Your task to perform on an android device: What's on my calendar today? Image 0: 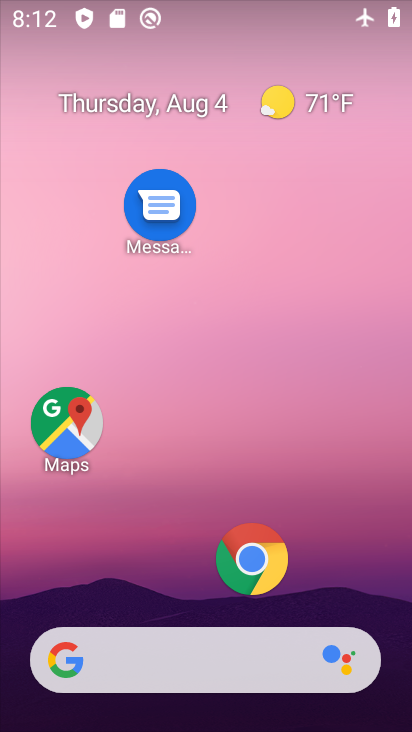
Step 0: drag from (192, 628) to (87, 42)
Your task to perform on an android device: What's on my calendar today? Image 1: 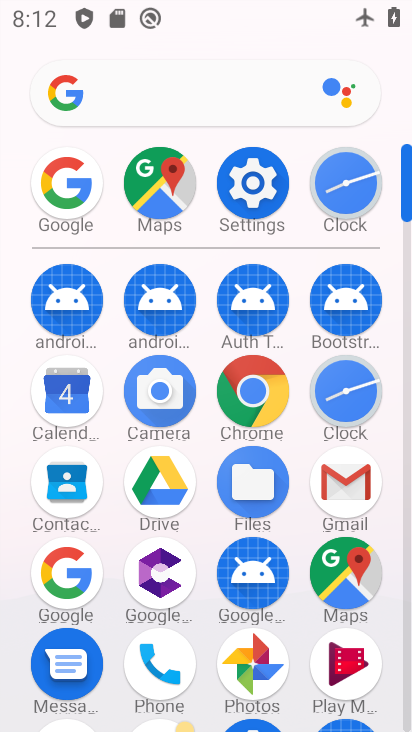
Step 1: click (38, 392)
Your task to perform on an android device: What's on my calendar today? Image 2: 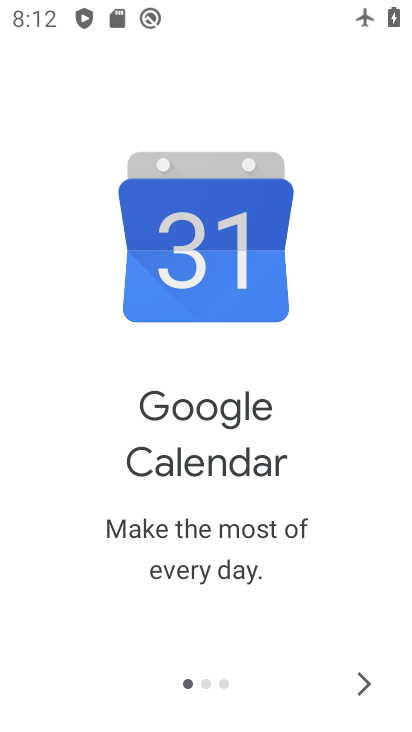
Step 2: click (368, 673)
Your task to perform on an android device: What's on my calendar today? Image 3: 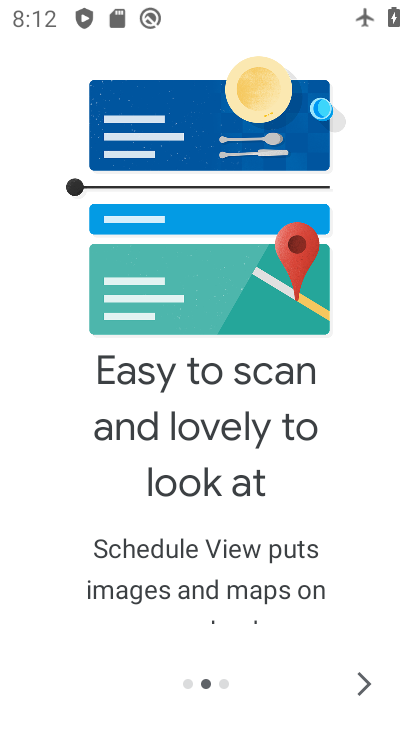
Step 3: click (365, 684)
Your task to perform on an android device: What's on my calendar today? Image 4: 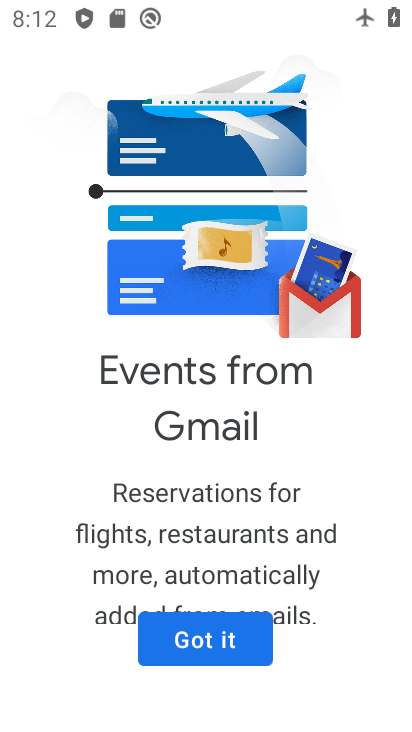
Step 4: click (228, 661)
Your task to perform on an android device: What's on my calendar today? Image 5: 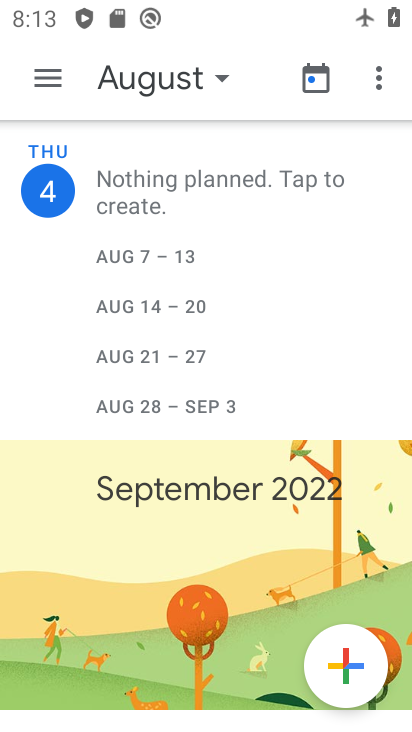
Step 5: click (306, 80)
Your task to perform on an android device: What's on my calendar today? Image 6: 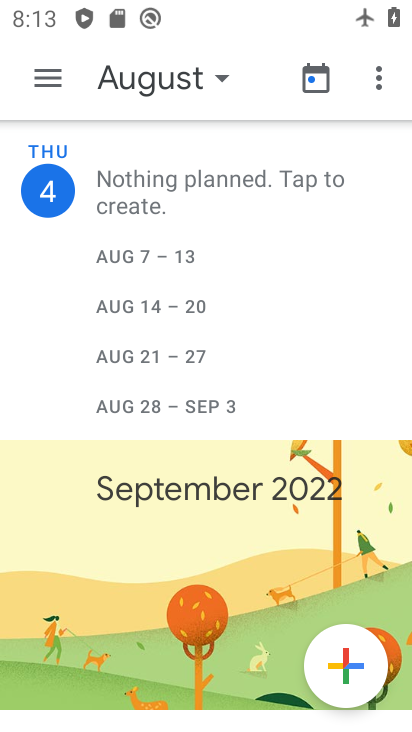
Step 6: click (311, 92)
Your task to perform on an android device: What's on my calendar today? Image 7: 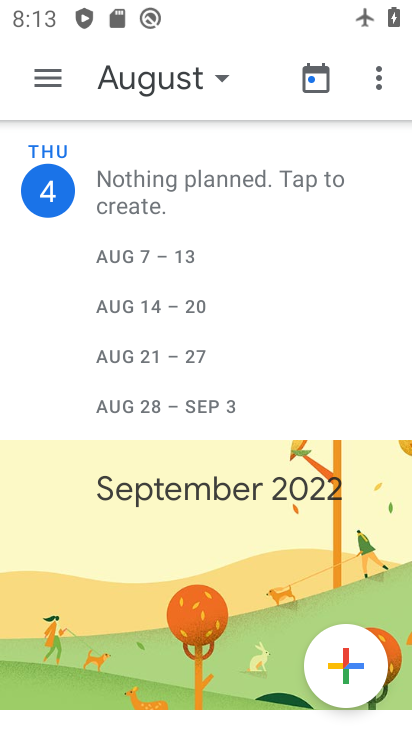
Step 7: click (308, 89)
Your task to perform on an android device: What's on my calendar today? Image 8: 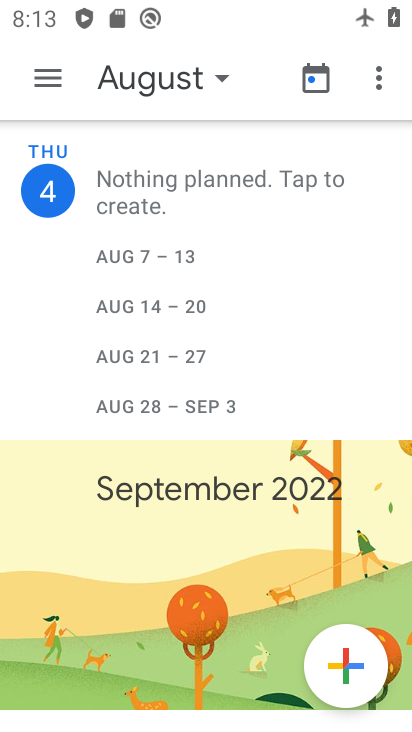
Step 8: click (311, 85)
Your task to perform on an android device: What's on my calendar today? Image 9: 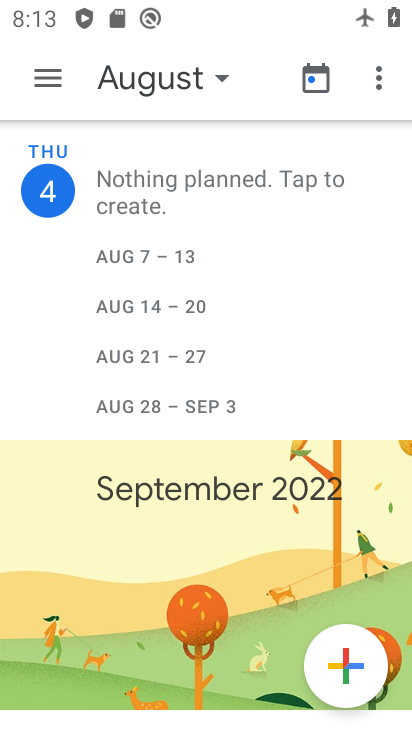
Step 9: click (26, 72)
Your task to perform on an android device: What's on my calendar today? Image 10: 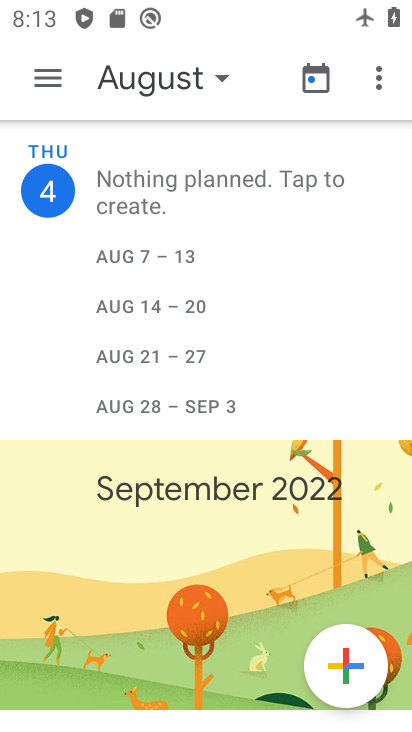
Step 10: click (60, 168)
Your task to perform on an android device: What's on my calendar today? Image 11: 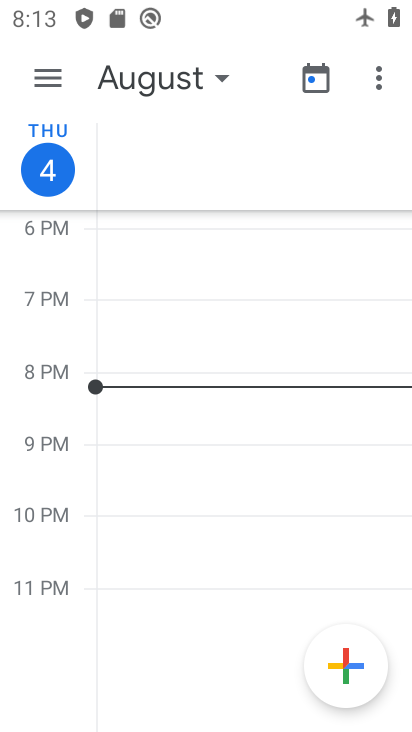
Step 11: task complete